Your task to perform on an android device: Open Android settings Image 0: 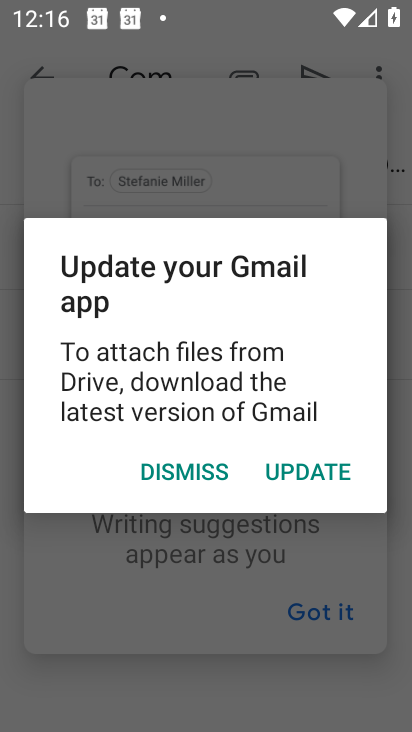
Step 0: click (154, 465)
Your task to perform on an android device: Open Android settings Image 1: 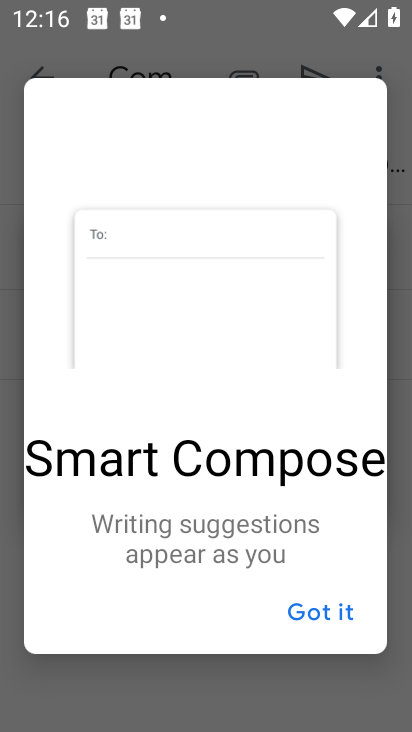
Step 1: click (346, 610)
Your task to perform on an android device: Open Android settings Image 2: 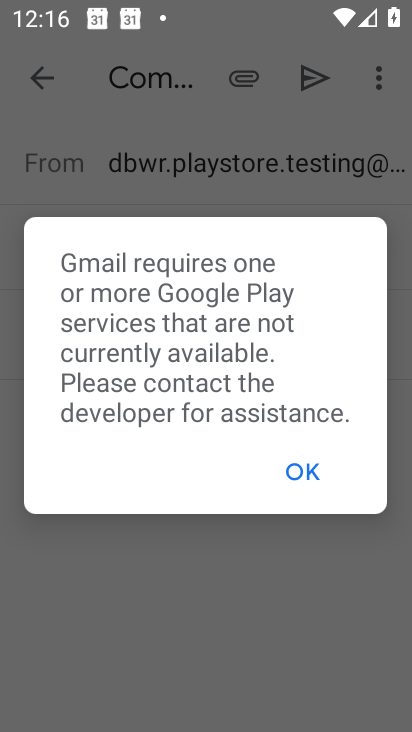
Step 2: press home button
Your task to perform on an android device: Open Android settings Image 3: 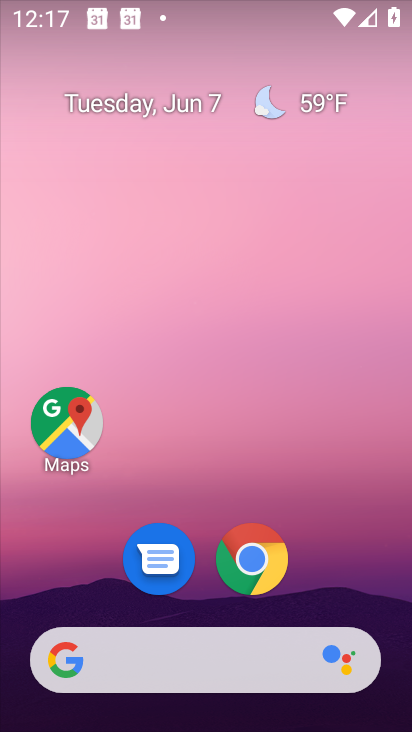
Step 3: press home button
Your task to perform on an android device: Open Android settings Image 4: 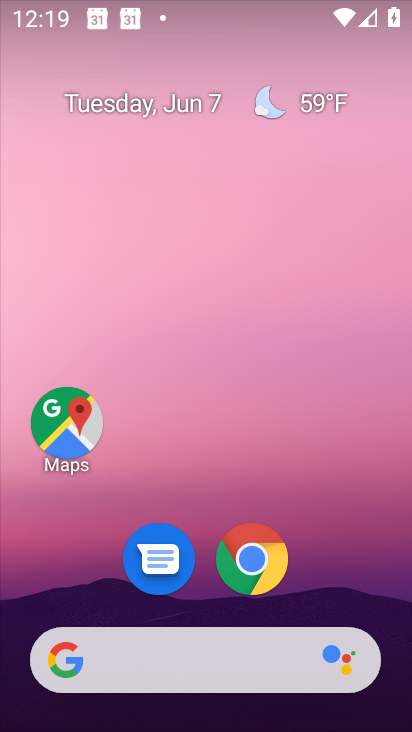
Step 4: drag from (346, 581) to (358, 49)
Your task to perform on an android device: Open Android settings Image 5: 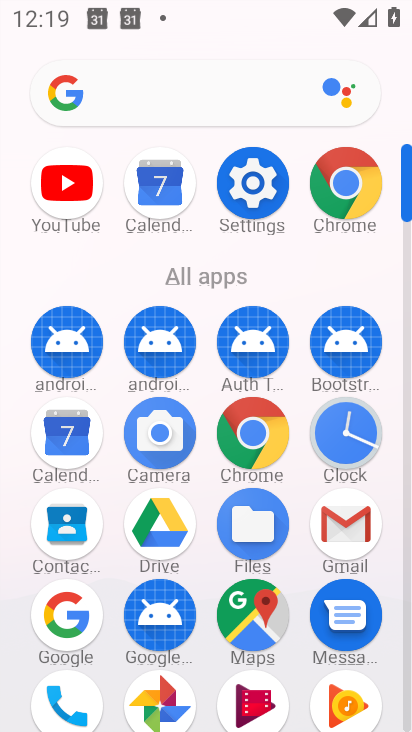
Step 5: click (265, 168)
Your task to perform on an android device: Open Android settings Image 6: 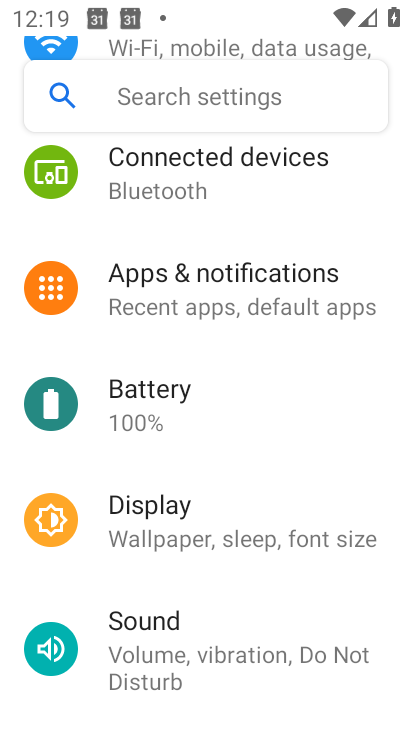
Step 6: task complete